Your task to perform on an android device: Open location settings Image 0: 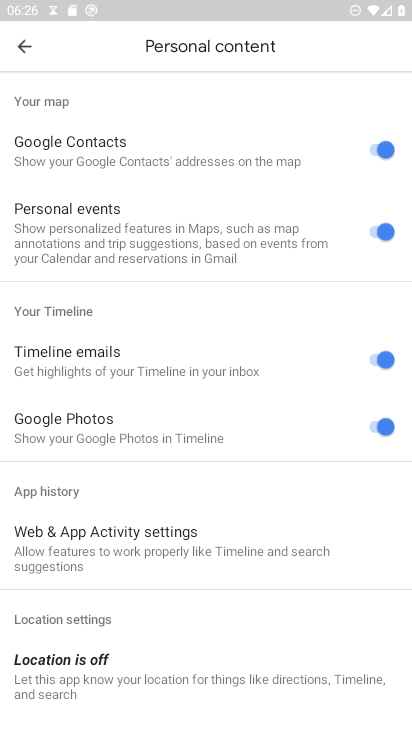
Step 0: press home button
Your task to perform on an android device: Open location settings Image 1: 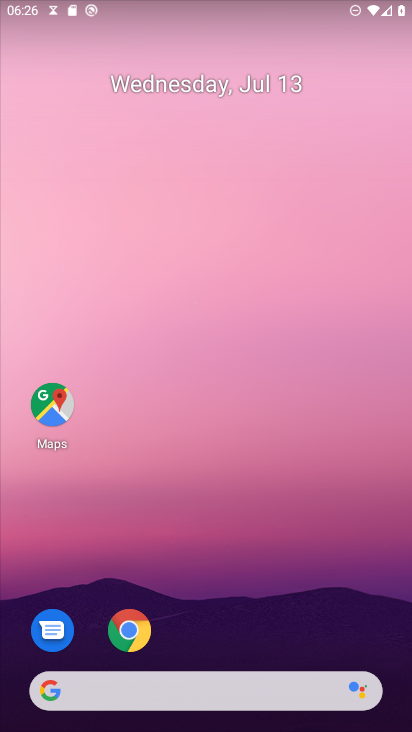
Step 1: drag from (295, 680) to (218, 21)
Your task to perform on an android device: Open location settings Image 2: 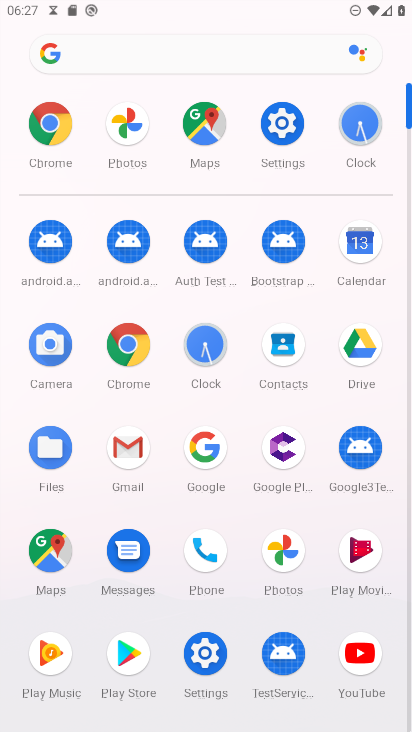
Step 2: click (277, 111)
Your task to perform on an android device: Open location settings Image 3: 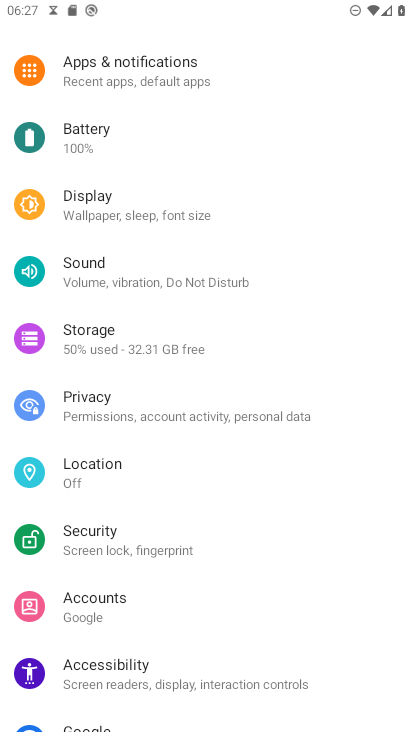
Step 3: click (135, 467)
Your task to perform on an android device: Open location settings Image 4: 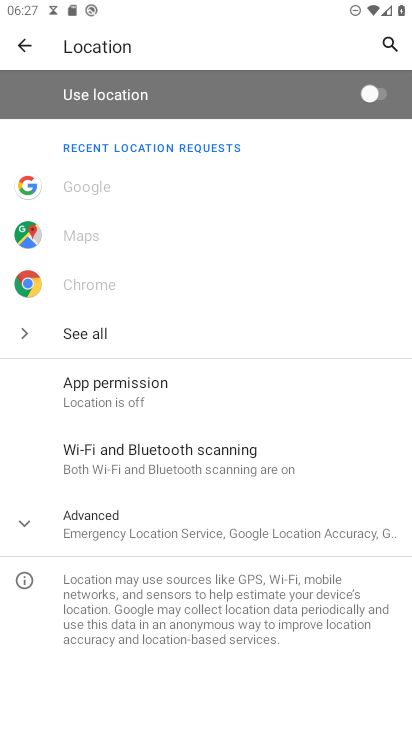
Step 4: task complete